Your task to perform on an android device: delete a single message in the gmail app Image 0: 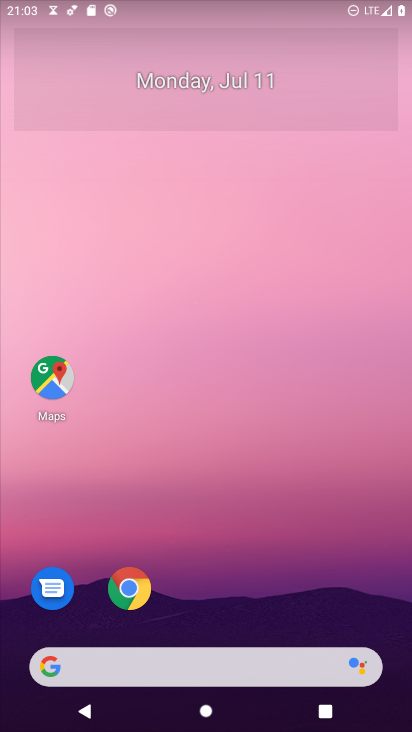
Step 0: press home button
Your task to perform on an android device: delete a single message in the gmail app Image 1: 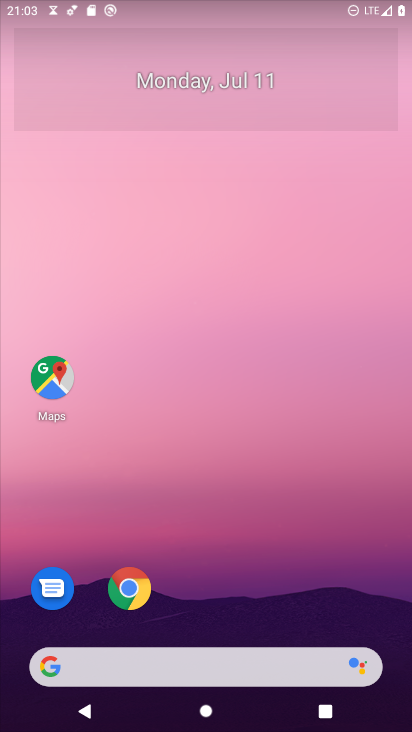
Step 1: drag from (228, 545) to (193, 6)
Your task to perform on an android device: delete a single message in the gmail app Image 2: 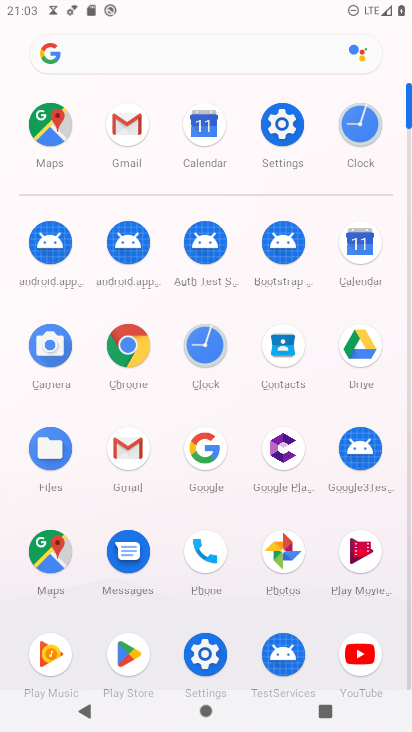
Step 2: click (140, 139)
Your task to perform on an android device: delete a single message in the gmail app Image 3: 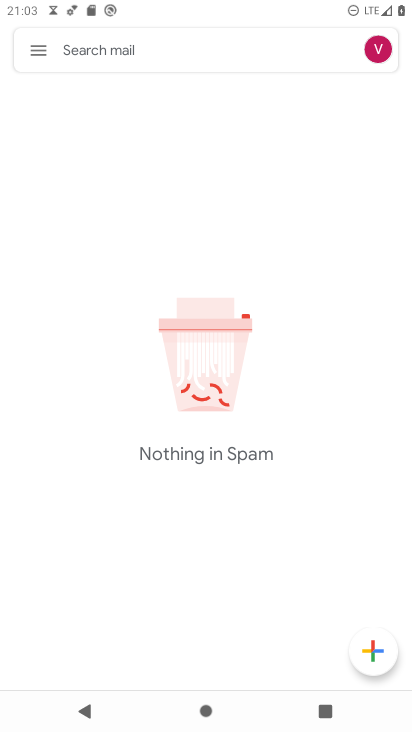
Step 3: click (49, 45)
Your task to perform on an android device: delete a single message in the gmail app Image 4: 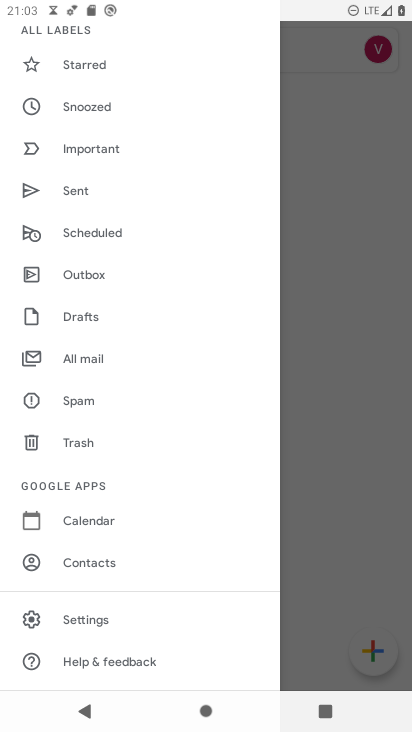
Step 4: click (87, 355)
Your task to perform on an android device: delete a single message in the gmail app Image 5: 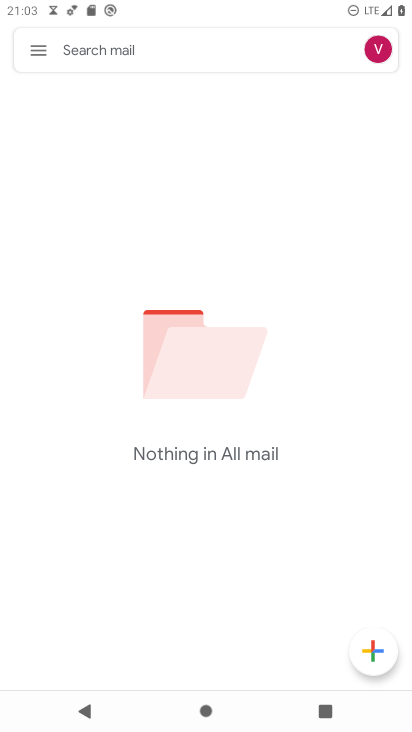
Step 5: task complete